Your task to perform on an android device: read, delete, or share a saved page in the chrome app Image 0: 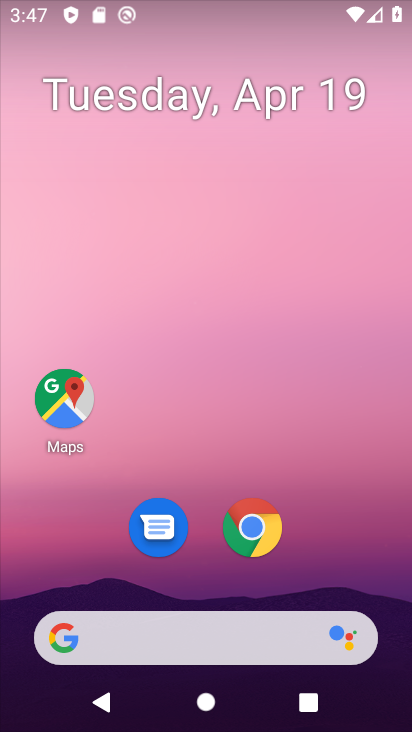
Step 0: click (255, 526)
Your task to perform on an android device: read, delete, or share a saved page in the chrome app Image 1: 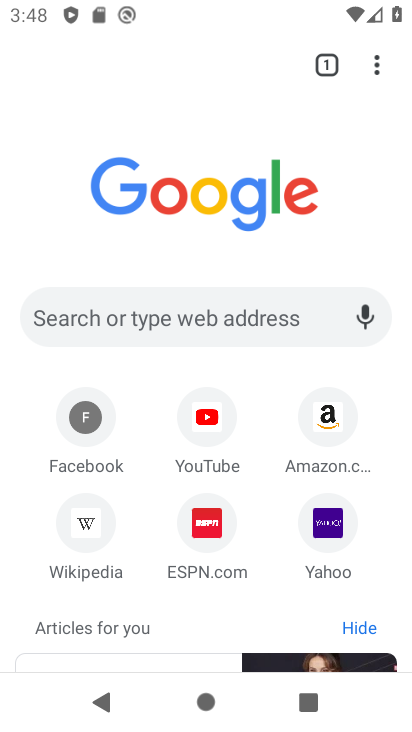
Step 1: click (374, 60)
Your task to perform on an android device: read, delete, or share a saved page in the chrome app Image 2: 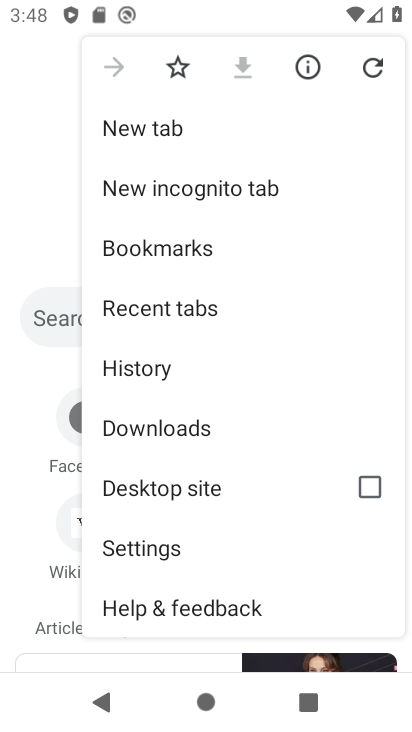
Step 2: click (146, 426)
Your task to perform on an android device: read, delete, or share a saved page in the chrome app Image 3: 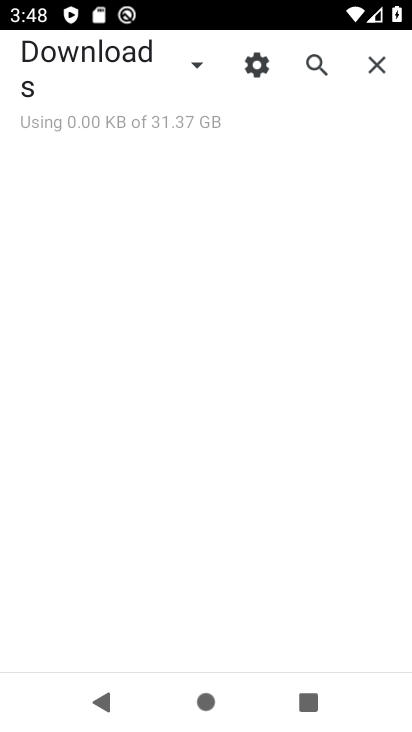
Step 3: click (199, 73)
Your task to perform on an android device: read, delete, or share a saved page in the chrome app Image 4: 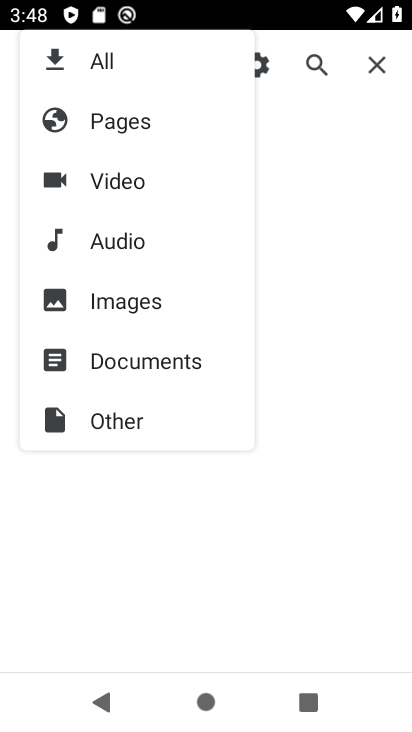
Step 4: click (111, 131)
Your task to perform on an android device: read, delete, or share a saved page in the chrome app Image 5: 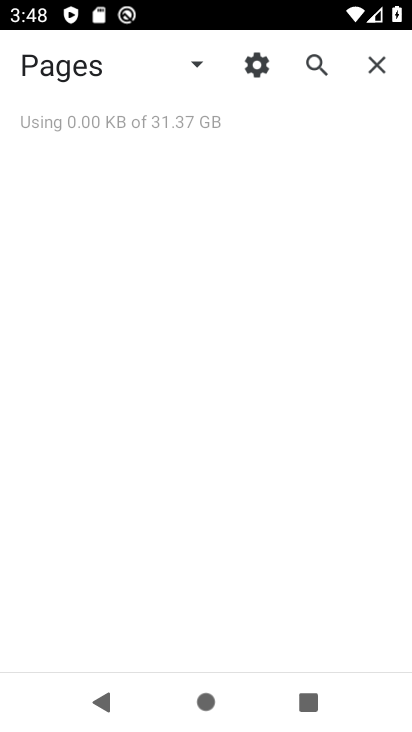
Step 5: task complete